Your task to perform on an android device: toggle show notifications on the lock screen Image 0: 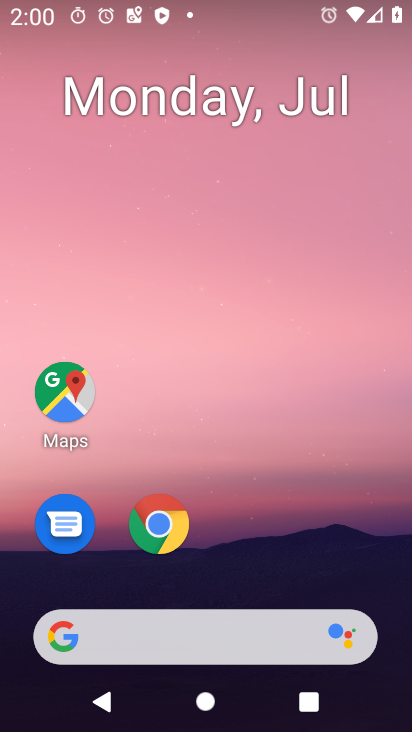
Step 0: press home button
Your task to perform on an android device: toggle show notifications on the lock screen Image 1: 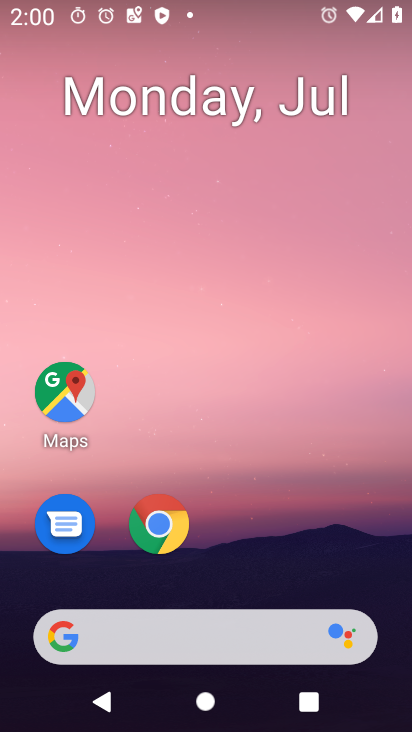
Step 1: drag from (266, 581) to (217, 140)
Your task to perform on an android device: toggle show notifications on the lock screen Image 2: 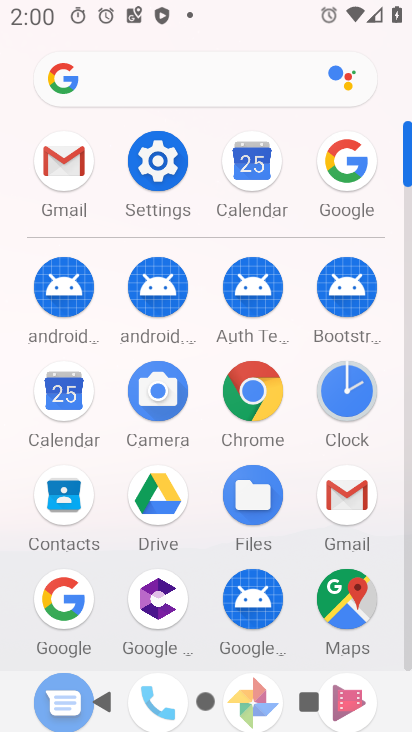
Step 2: click (173, 146)
Your task to perform on an android device: toggle show notifications on the lock screen Image 3: 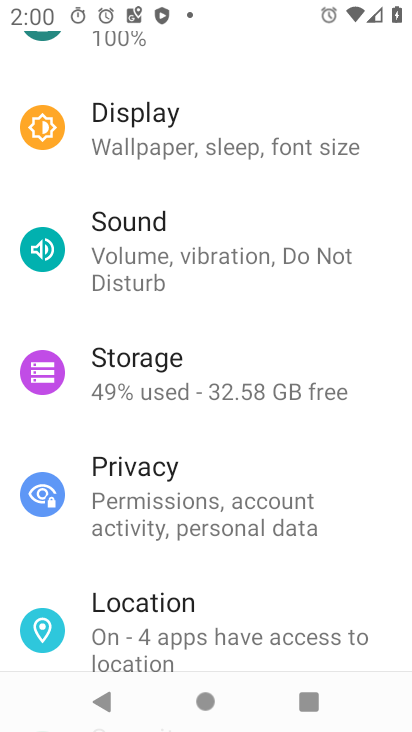
Step 3: drag from (222, 182) to (174, 568)
Your task to perform on an android device: toggle show notifications on the lock screen Image 4: 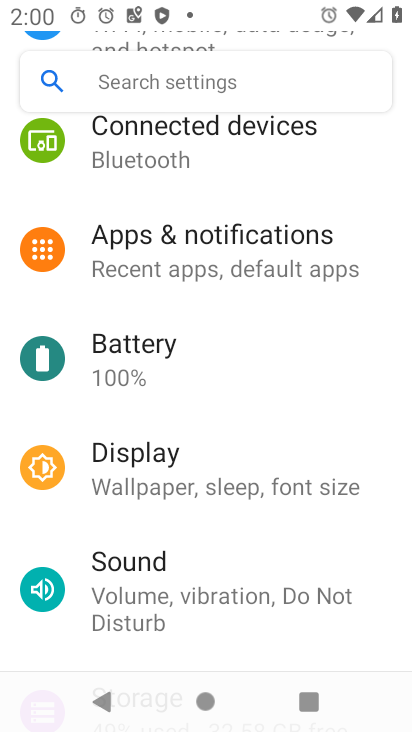
Step 4: click (178, 258)
Your task to perform on an android device: toggle show notifications on the lock screen Image 5: 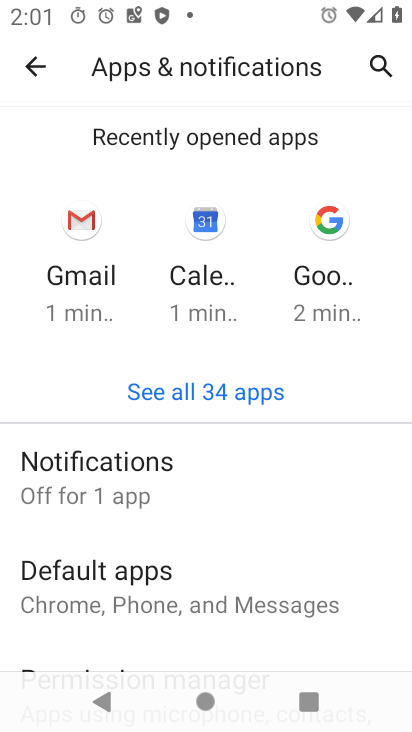
Step 5: click (96, 469)
Your task to perform on an android device: toggle show notifications on the lock screen Image 6: 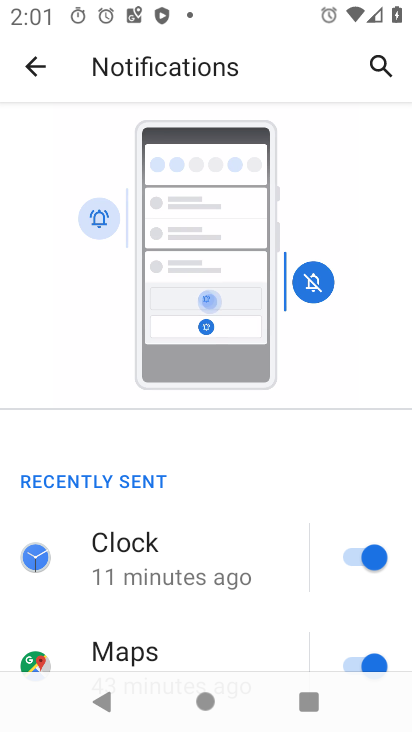
Step 6: drag from (179, 491) to (167, 217)
Your task to perform on an android device: toggle show notifications on the lock screen Image 7: 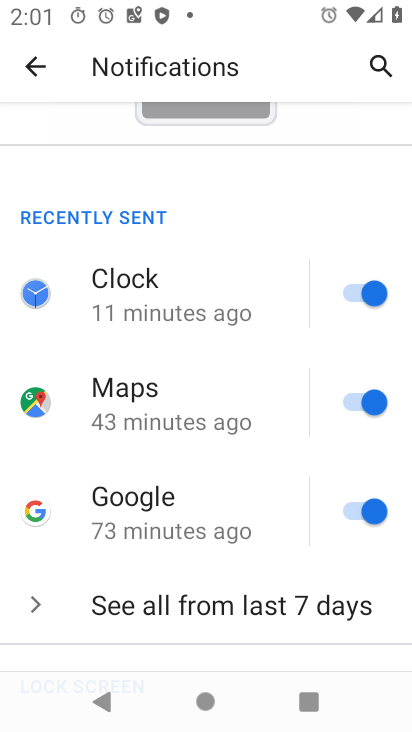
Step 7: drag from (123, 654) to (88, 238)
Your task to perform on an android device: toggle show notifications on the lock screen Image 8: 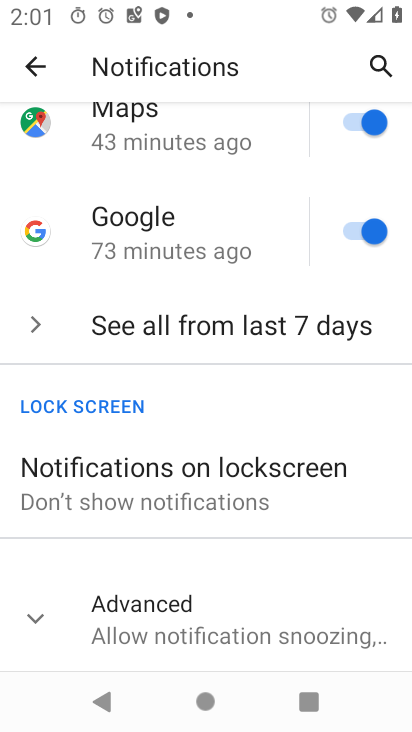
Step 8: click (101, 485)
Your task to perform on an android device: toggle show notifications on the lock screen Image 9: 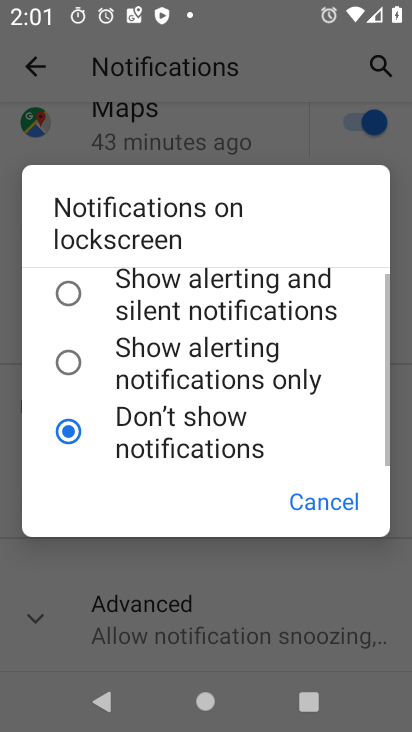
Step 9: click (74, 292)
Your task to perform on an android device: toggle show notifications on the lock screen Image 10: 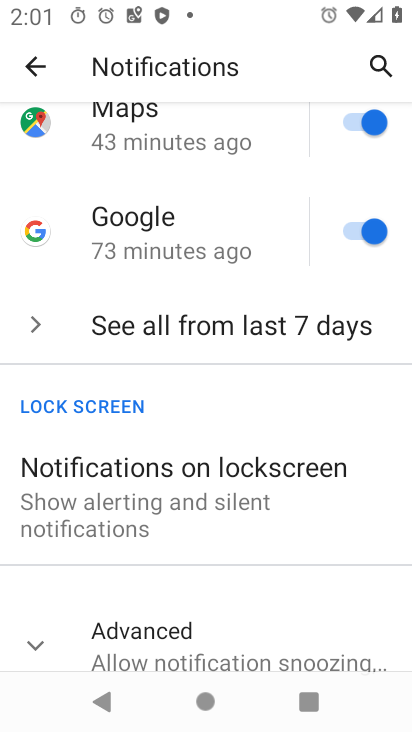
Step 10: task complete